Your task to perform on an android device: Do I have any events tomorrow? Image 0: 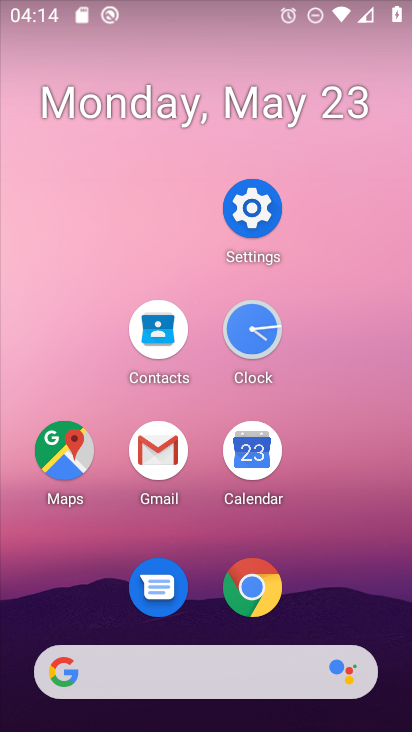
Step 0: click (169, 322)
Your task to perform on an android device: Do I have any events tomorrow? Image 1: 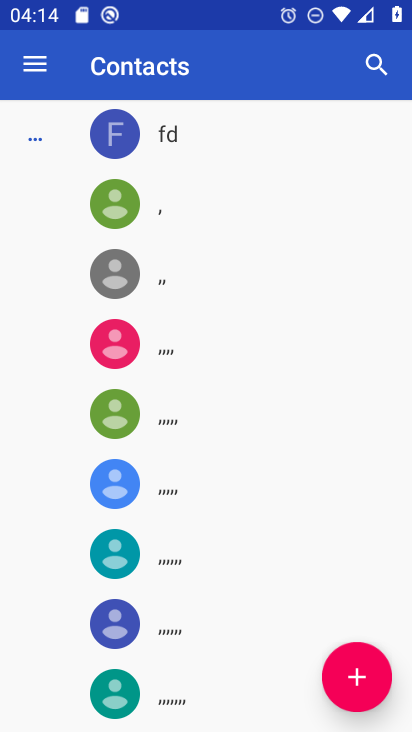
Step 1: press home button
Your task to perform on an android device: Do I have any events tomorrow? Image 2: 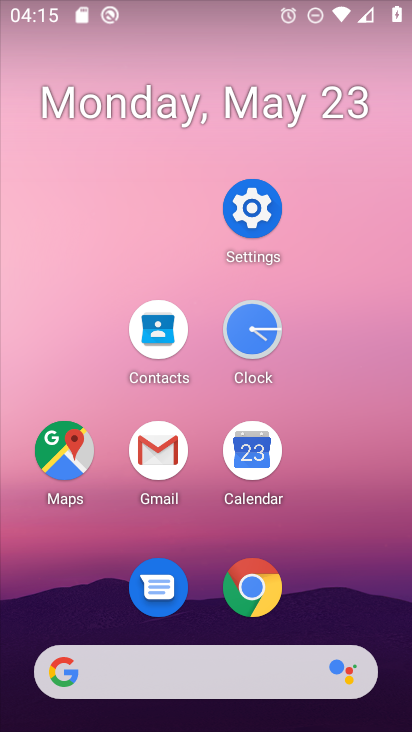
Step 2: click (243, 340)
Your task to perform on an android device: Do I have any events tomorrow? Image 3: 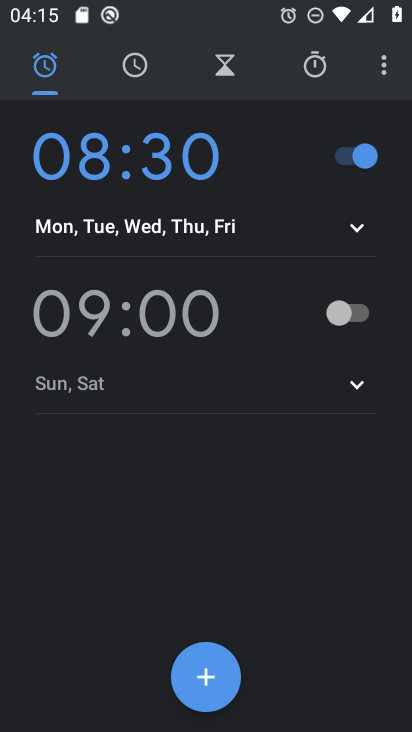
Step 3: press home button
Your task to perform on an android device: Do I have any events tomorrow? Image 4: 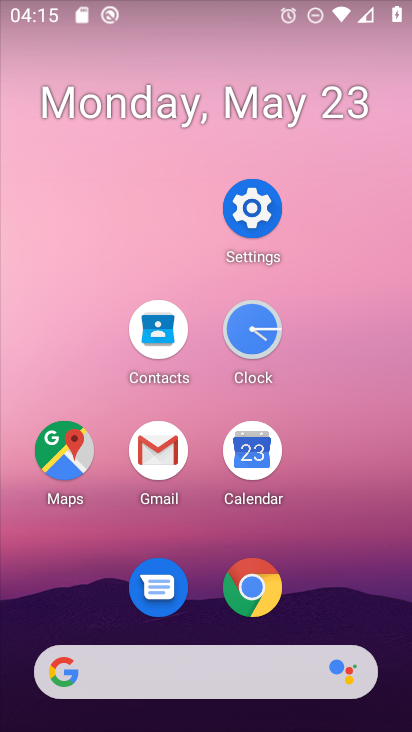
Step 4: click (263, 453)
Your task to perform on an android device: Do I have any events tomorrow? Image 5: 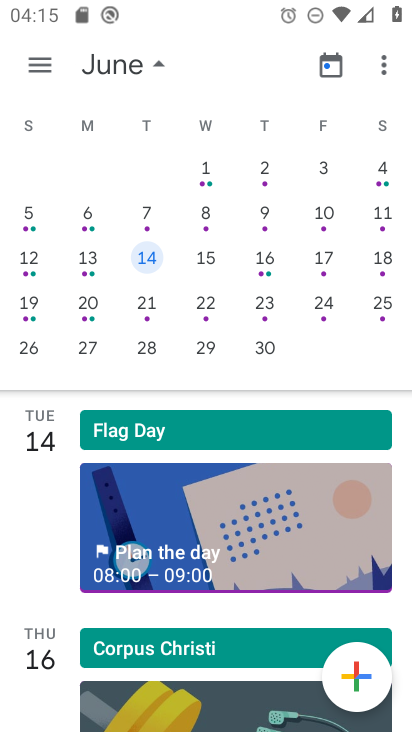
Step 5: task complete